Your task to perform on an android device: toggle notification dots Image 0: 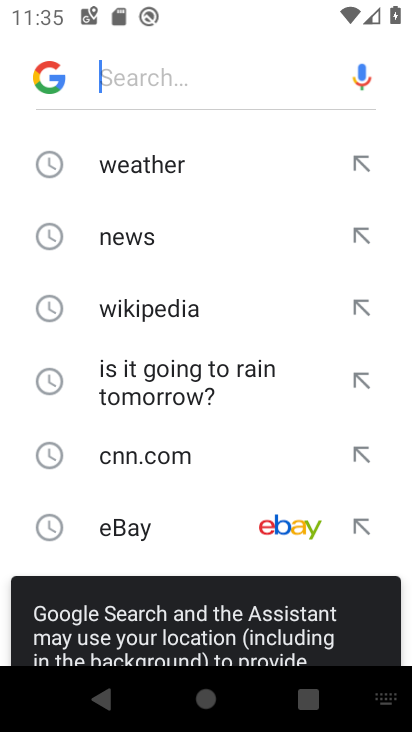
Step 0: press back button
Your task to perform on an android device: toggle notification dots Image 1: 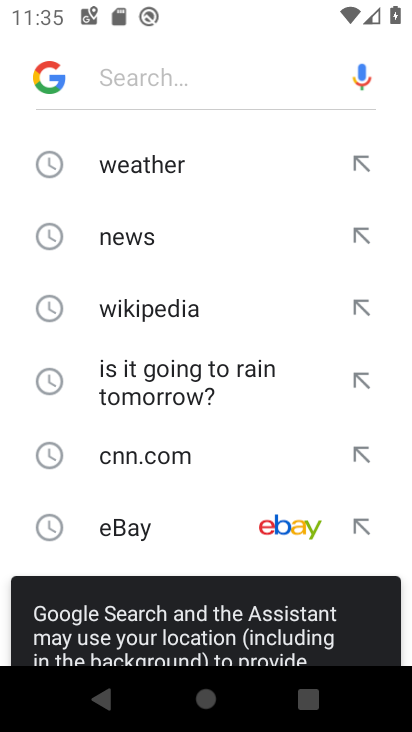
Step 1: press back button
Your task to perform on an android device: toggle notification dots Image 2: 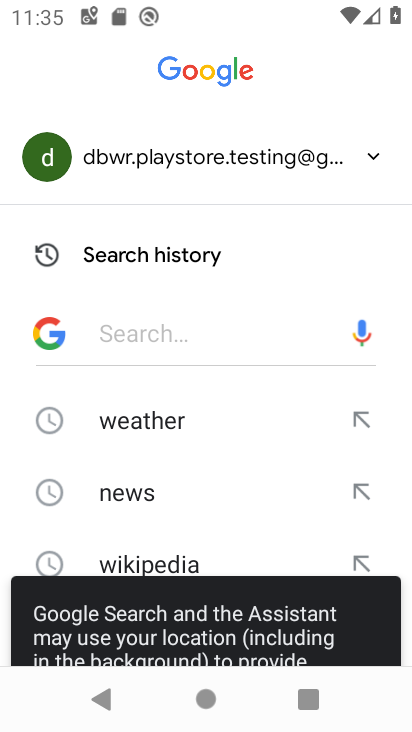
Step 2: press back button
Your task to perform on an android device: toggle notification dots Image 3: 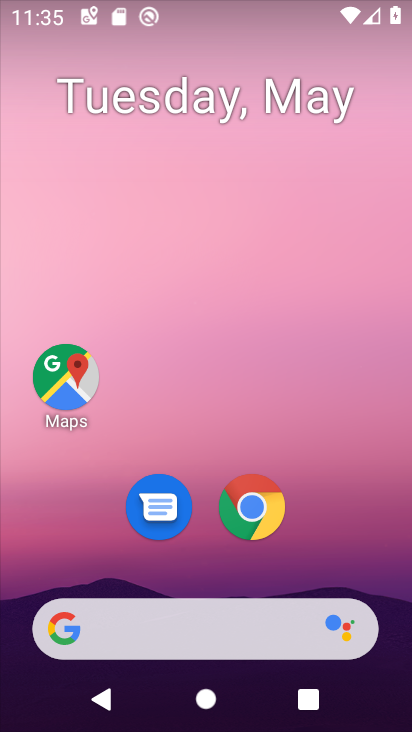
Step 3: drag from (239, 710) to (210, 360)
Your task to perform on an android device: toggle notification dots Image 4: 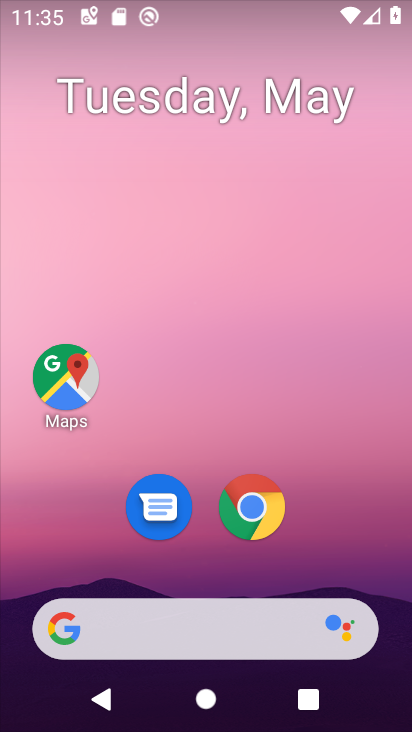
Step 4: drag from (247, 675) to (233, 18)
Your task to perform on an android device: toggle notification dots Image 5: 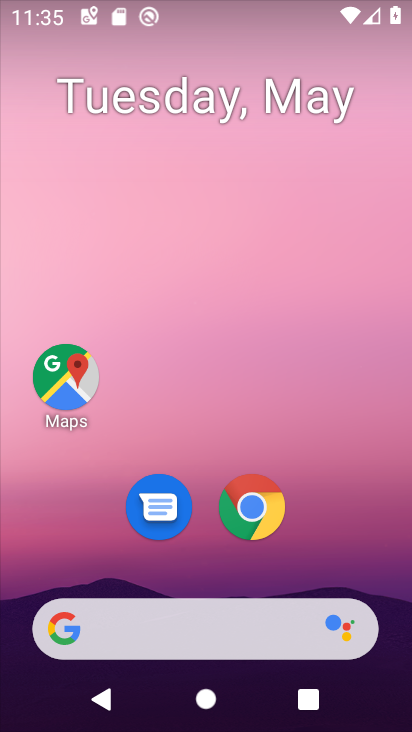
Step 5: drag from (266, 560) to (266, 68)
Your task to perform on an android device: toggle notification dots Image 6: 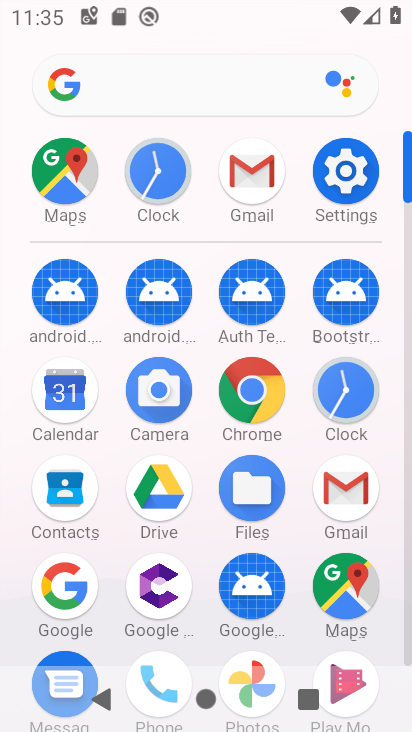
Step 6: click (338, 151)
Your task to perform on an android device: toggle notification dots Image 7: 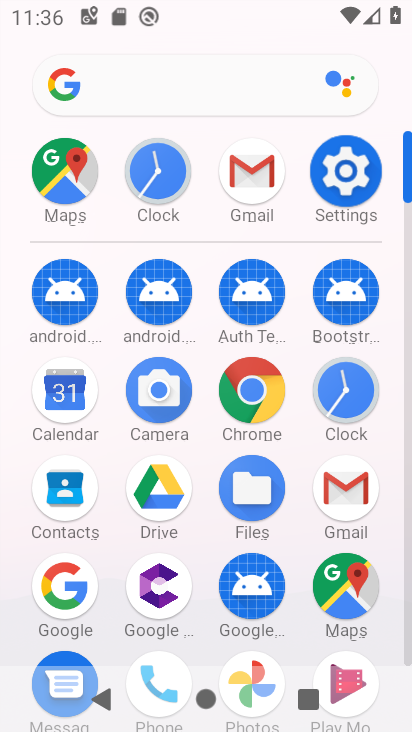
Step 7: click (341, 151)
Your task to perform on an android device: toggle notification dots Image 8: 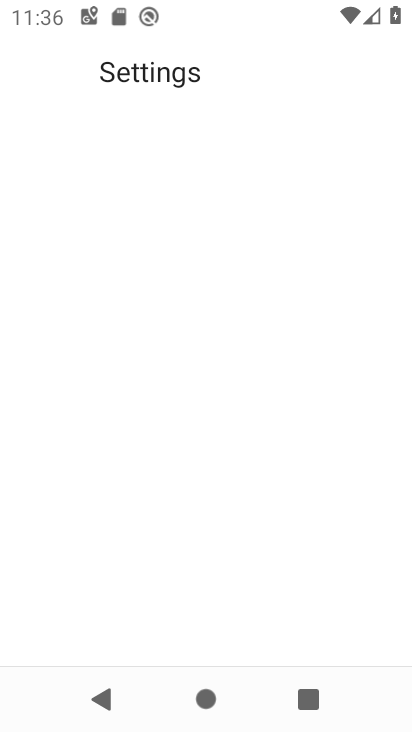
Step 8: click (341, 151)
Your task to perform on an android device: toggle notification dots Image 9: 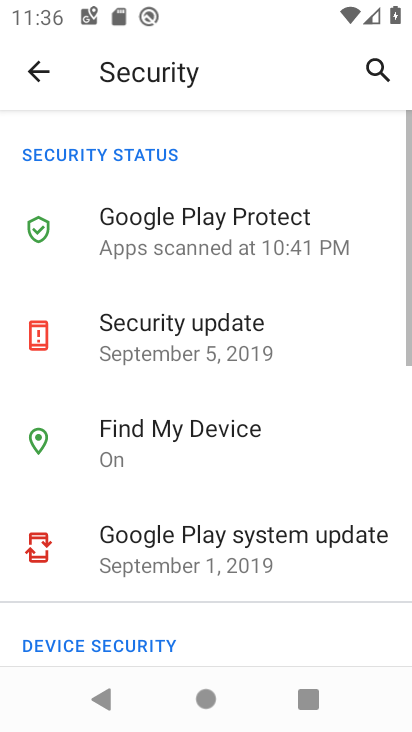
Step 9: click (45, 71)
Your task to perform on an android device: toggle notification dots Image 10: 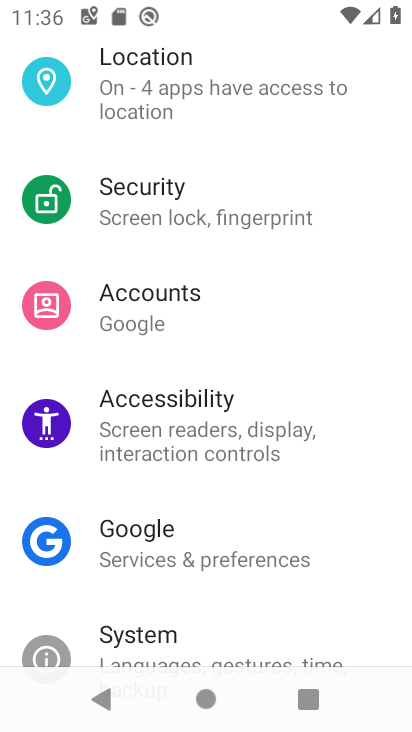
Step 10: drag from (138, 207) to (253, 542)
Your task to perform on an android device: toggle notification dots Image 11: 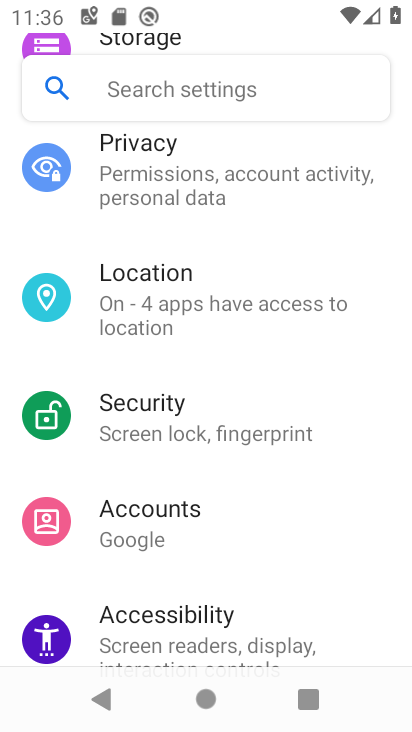
Step 11: drag from (165, 223) to (246, 531)
Your task to perform on an android device: toggle notification dots Image 12: 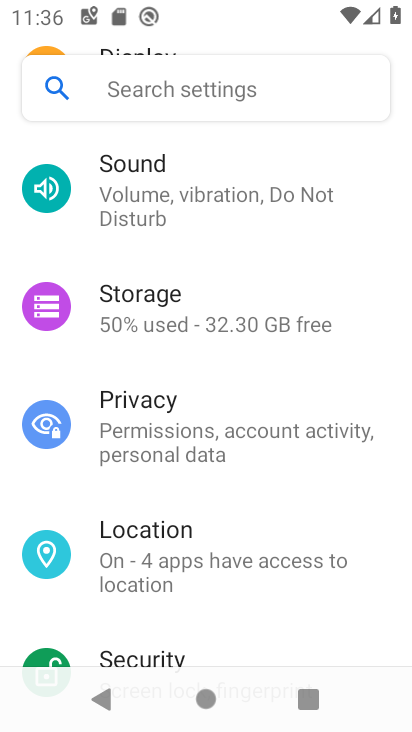
Step 12: drag from (127, 211) to (236, 549)
Your task to perform on an android device: toggle notification dots Image 13: 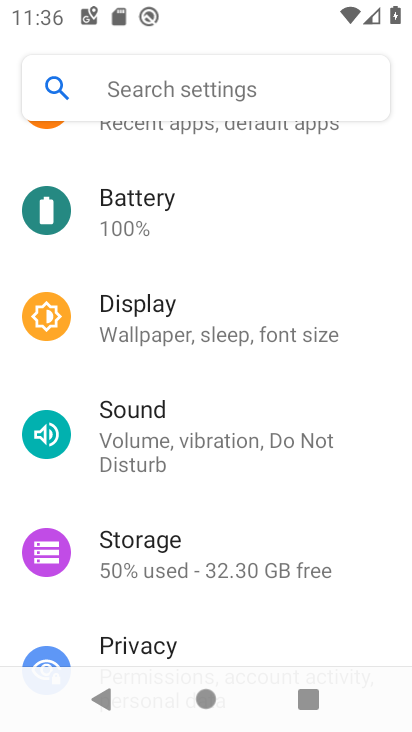
Step 13: drag from (169, 228) to (261, 607)
Your task to perform on an android device: toggle notification dots Image 14: 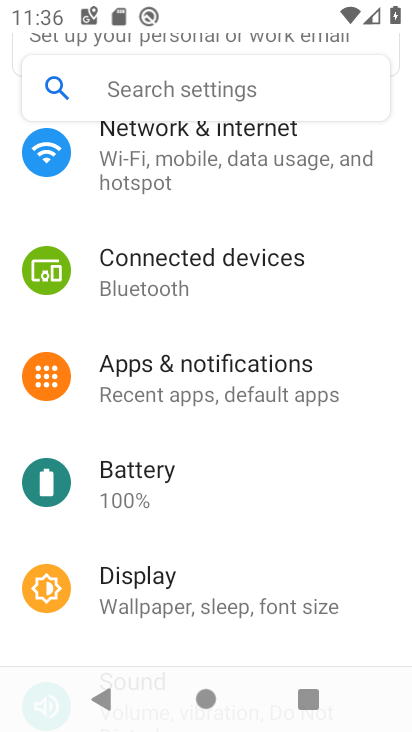
Step 14: click (191, 368)
Your task to perform on an android device: toggle notification dots Image 15: 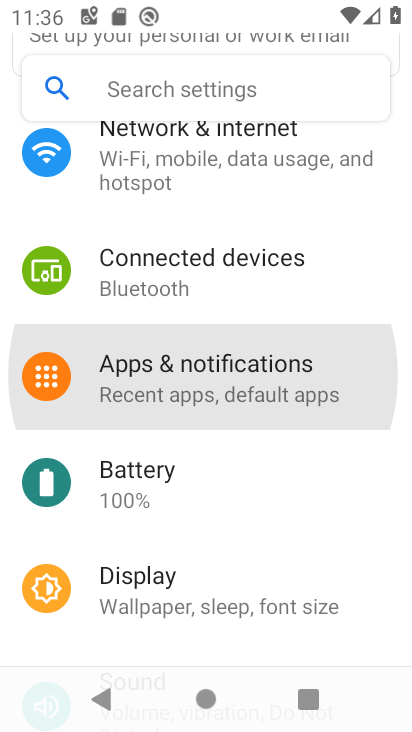
Step 15: click (191, 368)
Your task to perform on an android device: toggle notification dots Image 16: 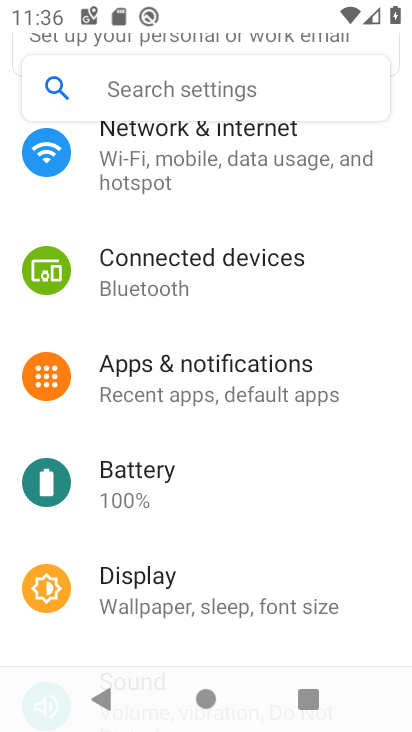
Step 16: click (191, 368)
Your task to perform on an android device: toggle notification dots Image 17: 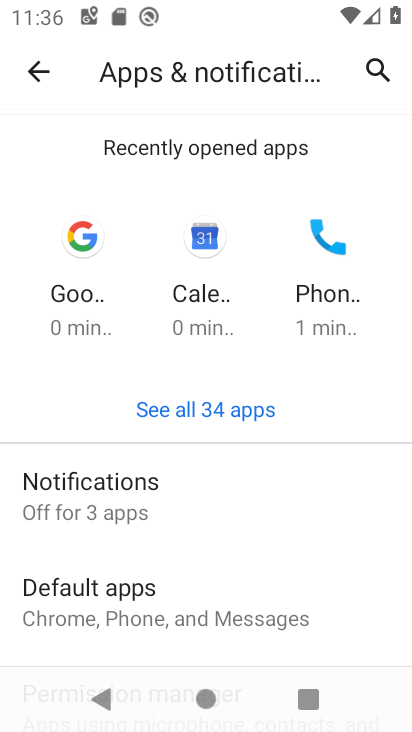
Step 17: click (91, 486)
Your task to perform on an android device: toggle notification dots Image 18: 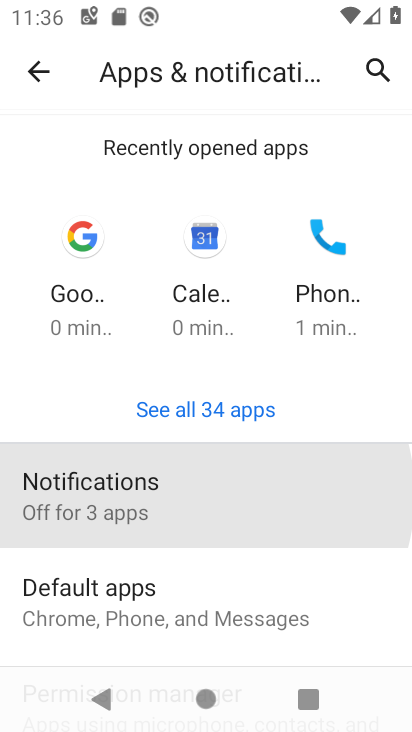
Step 18: click (94, 485)
Your task to perform on an android device: toggle notification dots Image 19: 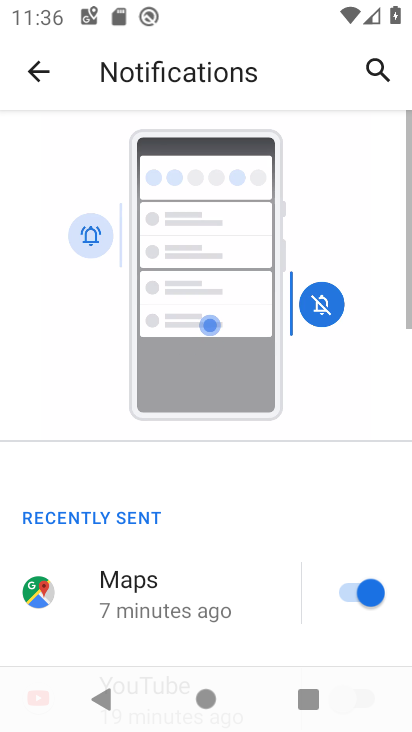
Step 19: drag from (277, 539) to (277, 259)
Your task to perform on an android device: toggle notification dots Image 20: 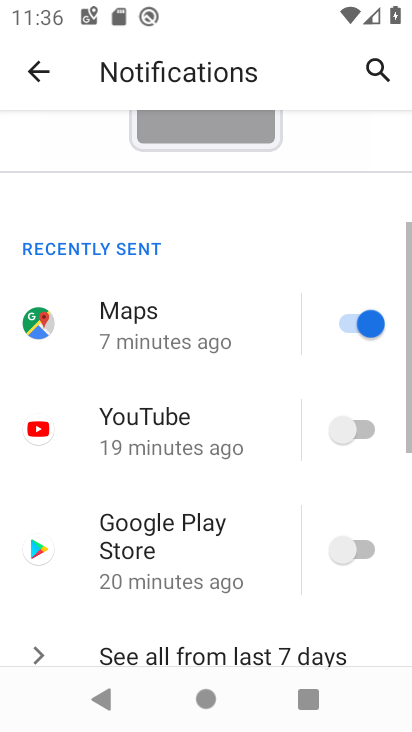
Step 20: drag from (246, 501) to (245, 205)
Your task to perform on an android device: toggle notification dots Image 21: 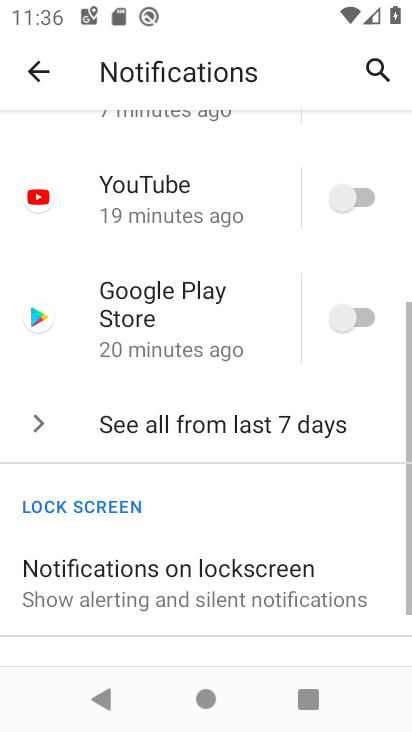
Step 21: drag from (196, 477) to (224, 156)
Your task to perform on an android device: toggle notification dots Image 22: 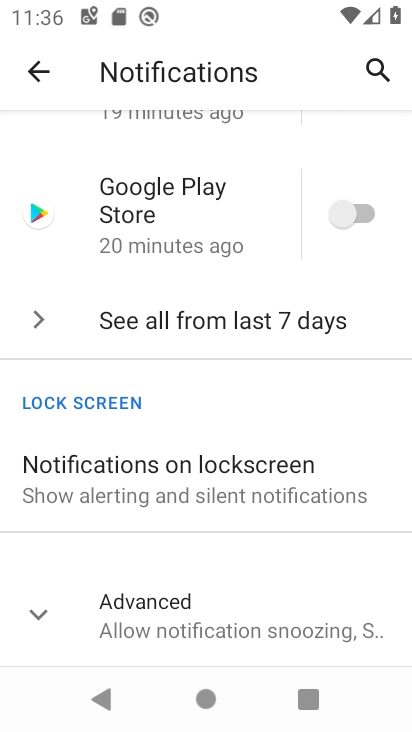
Step 22: click (137, 615)
Your task to perform on an android device: toggle notification dots Image 23: 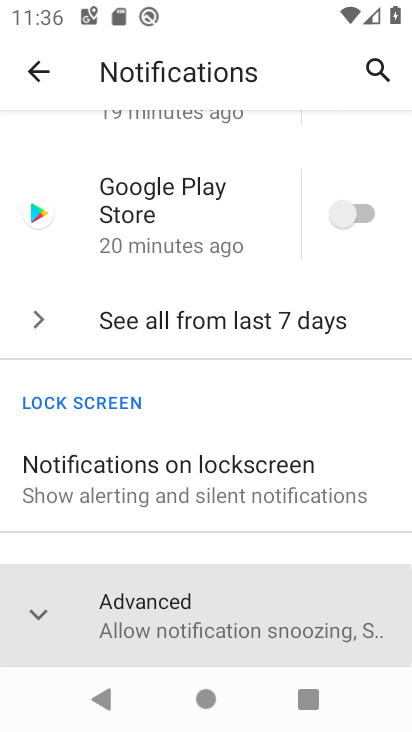
Step 23: click (137, 615)
Your task to perform on an android device: toggle notification dots Image 24: 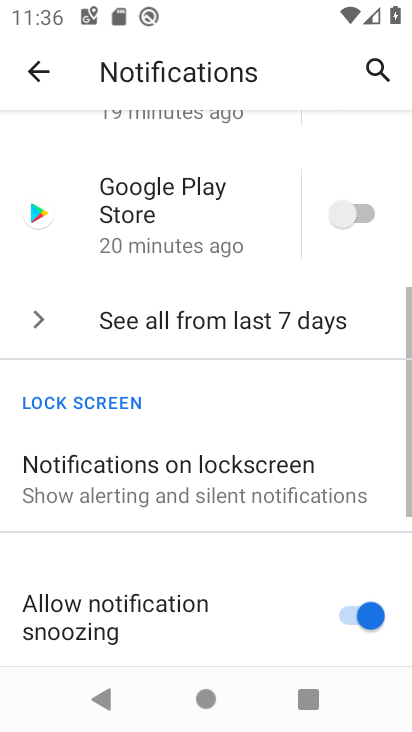
Step 24: drag from (213, 525) to (210, 203)
Your task to perform on an android device: toggle notification dots Image 25: 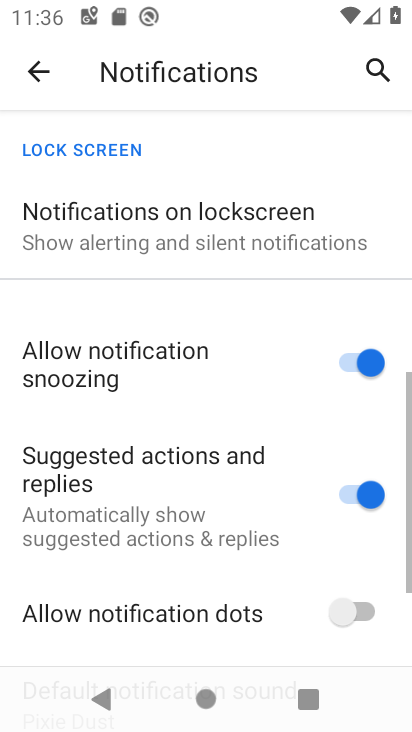
Step 25: drag from (233, 445) to (259, 159)
Your task to perform on an android device: toggle notification dots Image 26: 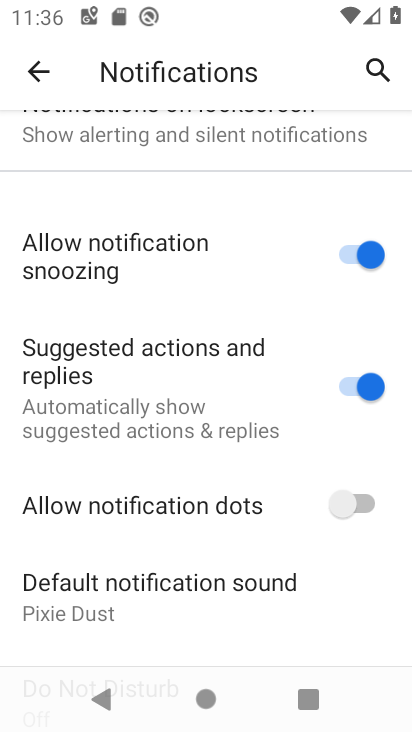
Step 26: click (356, 505)
Your task to perform on an android device: toggle notification dots Image 27: 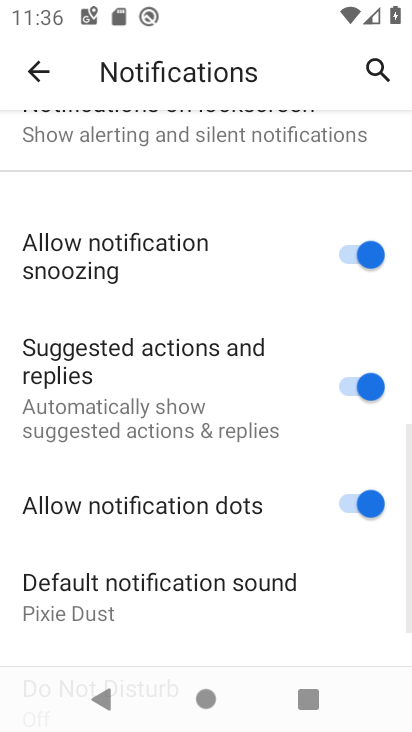
Step 27: task complete